Your task to perform on an android device: Open calendar and show me the fourth week of next month Image 0: 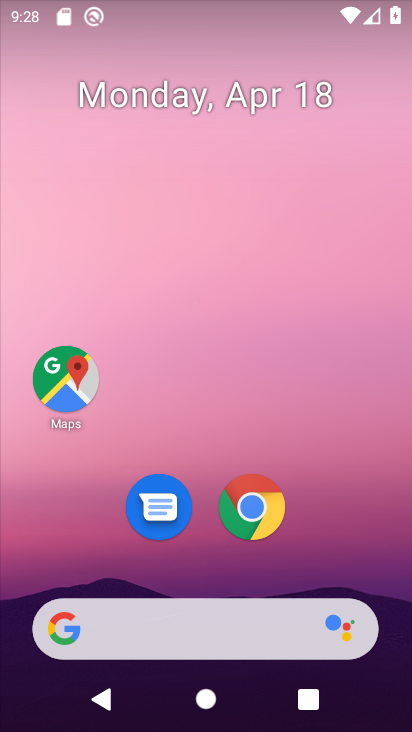
Step 0: drag from (194, 583) to (117, 42)
Your task to perform on an android device: Open calendar and show me the fourth week of next month Image 1: 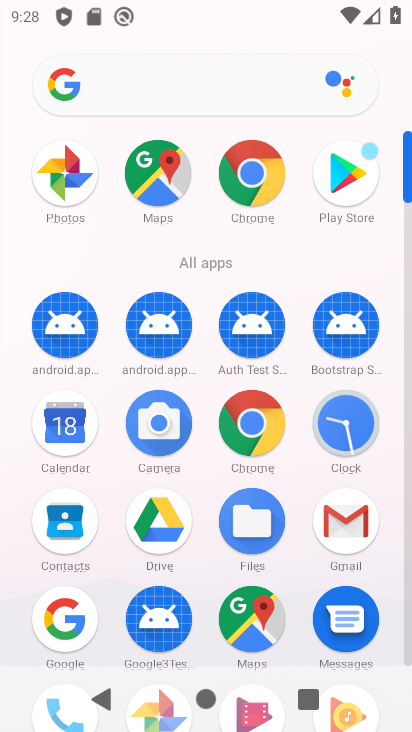
Step 1: click (59, 419)
Your task to perform on an android device: Open calendar and show me the fourth week of next month Image 2: 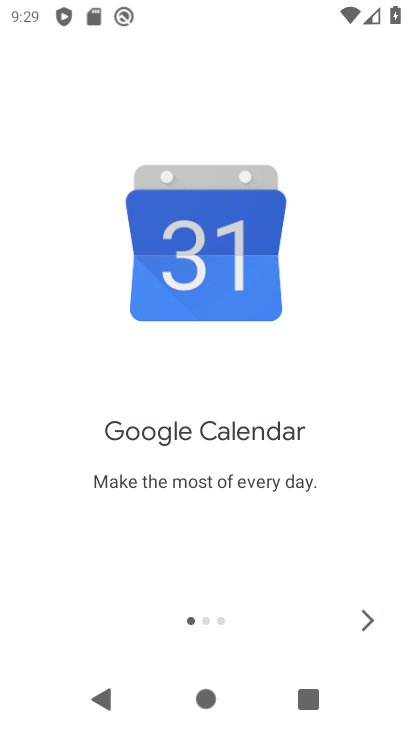
Step 2: click (370, 609)
Your task to perform on an android device: Open calendar and show me the fourth week of next month Image 3: 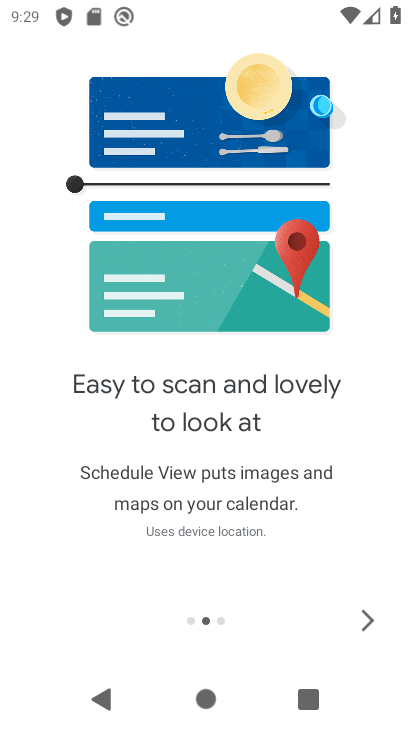
Step 3: click (370, 609)
Your task to perform on an android device: Open calendar and show me the fourth week of next month Image 4: 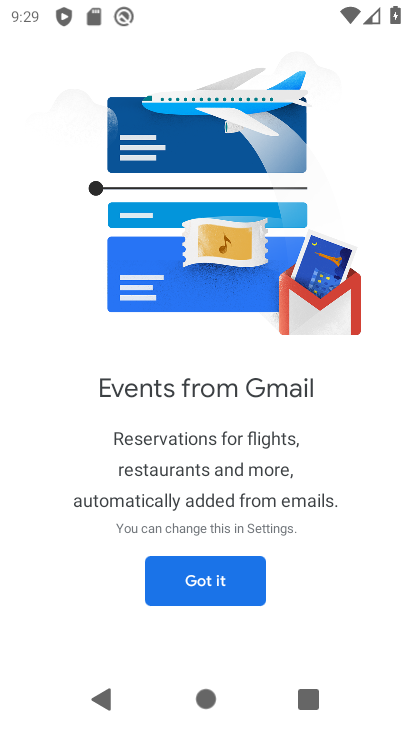
Step 4: click (187, 578)
Your task to perform on an android device: Open calendar and show me the fourth week of next month Image 5: 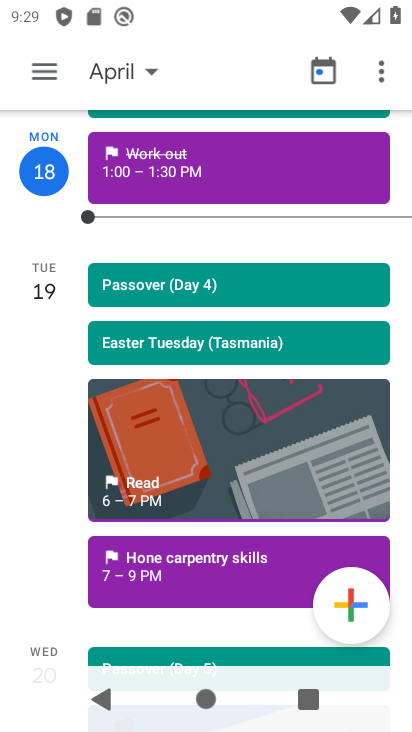
Step 5: click (17, 75)
Your task to perform on an android device: Open calendar and show me the fourth week of next month Image 6: 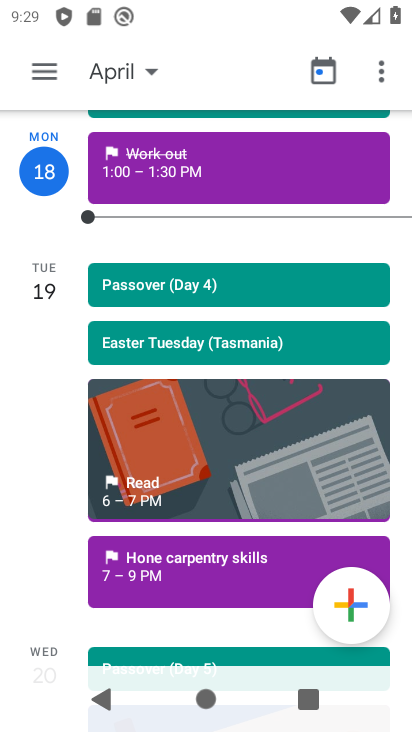
Step 6: click (33, 75)
Your task to perform on an android device: Open calendar and show me the fourth week of next month Image 7: 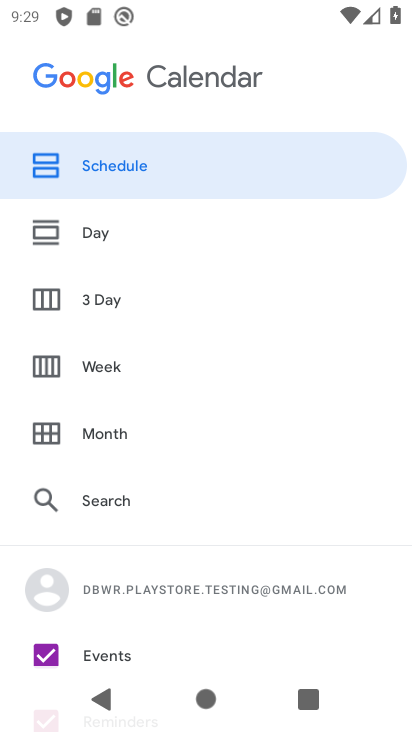
Step 7: click (124, 379)
Your task to perform on an android device: Open calendar and show me the fourth week of next month Image 8: 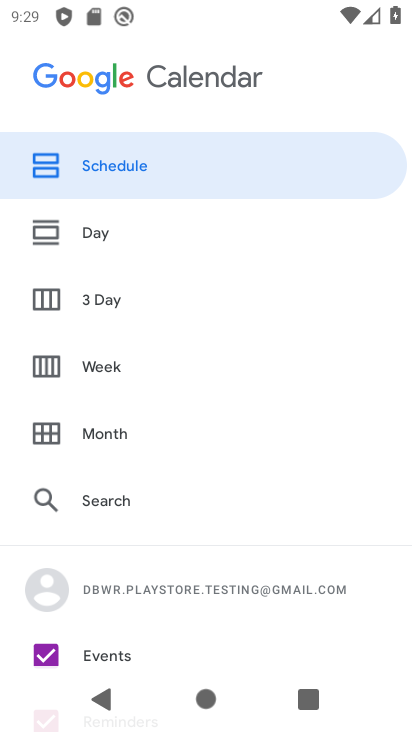
Step 8: click (85, 366)
Your task to perform on an android device: Open calendar and show me the fourth week of next month Image 9: 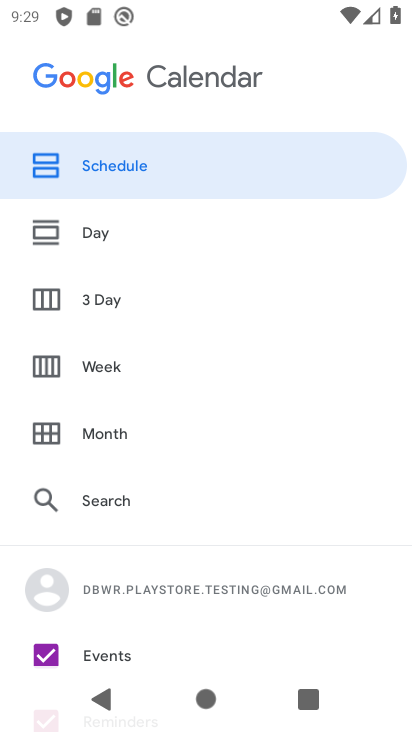
Step 9: click (94, 373)
Your task to perform on an android device: Open calendar and show me the fourth week of next month Image 10: 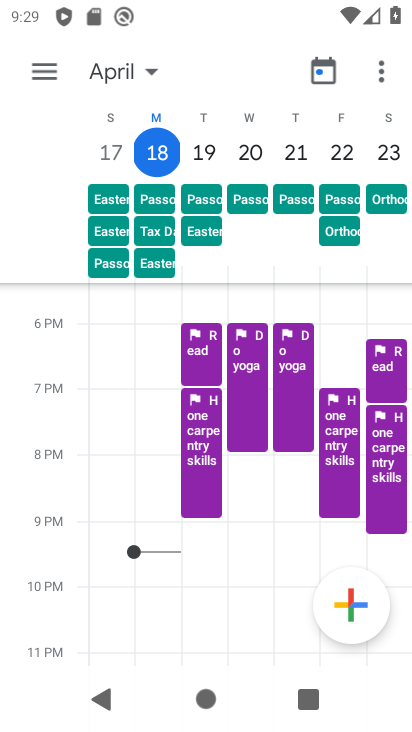
Step 10: task complete